Your task to perform on an android device: Open Google Chrome Image 0: 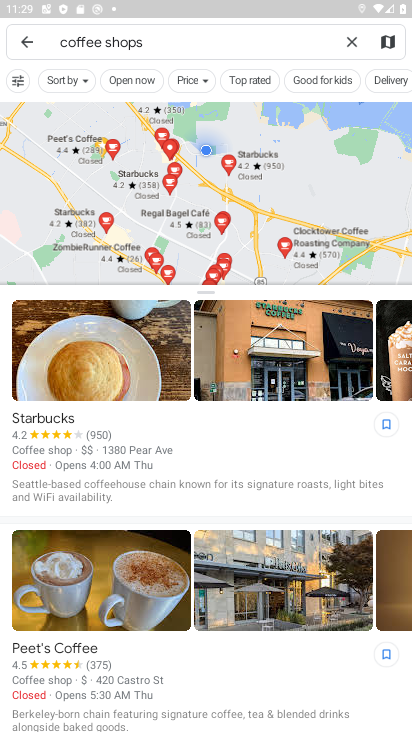
Step 0: press home button
Your task to perform on an android device: Open Google Chrome Image 1: 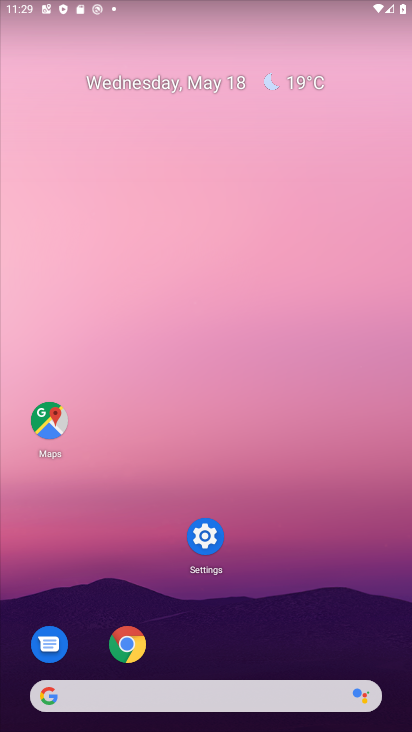
Step 1: click (121, 642)
Your task to perform on an android device: Open Google Chrome Image 2: 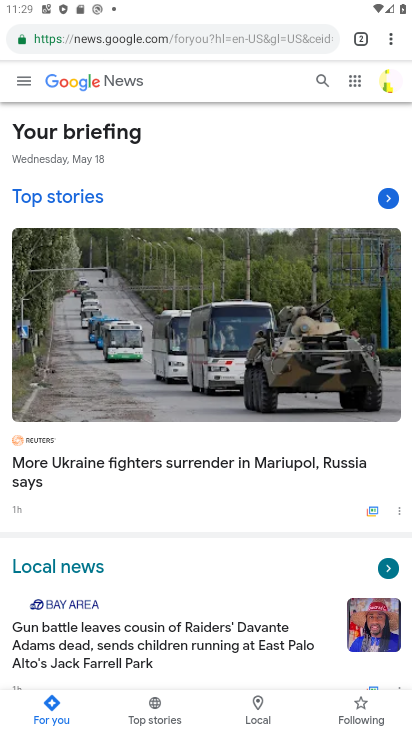
Step 2: task complete